Your task to perform on an android device: Open the calendar app, open the side menu, and click the "Day" option Image 0: 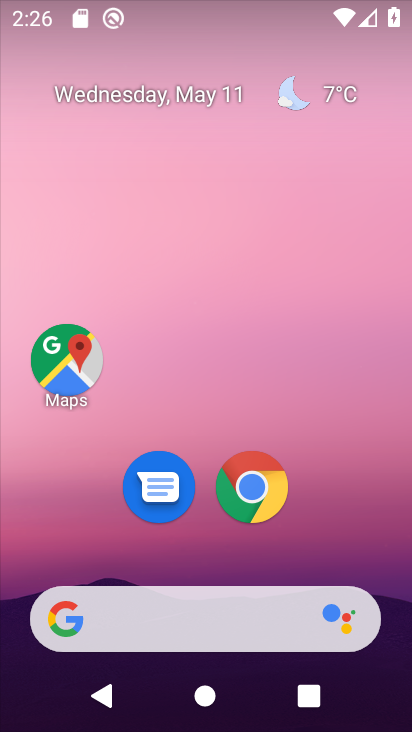
Step 0: drag from (164, 537) to (251, 86)
Your task to perform on an android device: Open the calendar app, open the side menu, and click the "Day" option Image 1: 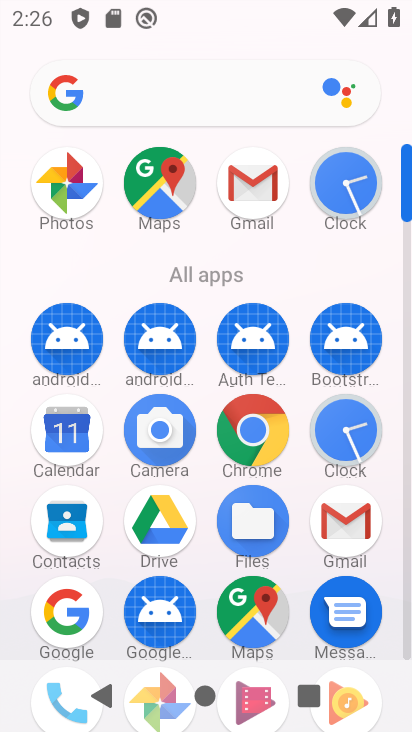
Step 1: click (51, 428)
Your task to perform on an android device: Open the calendar app, open the side menu, and click the "Day" option Image 2: 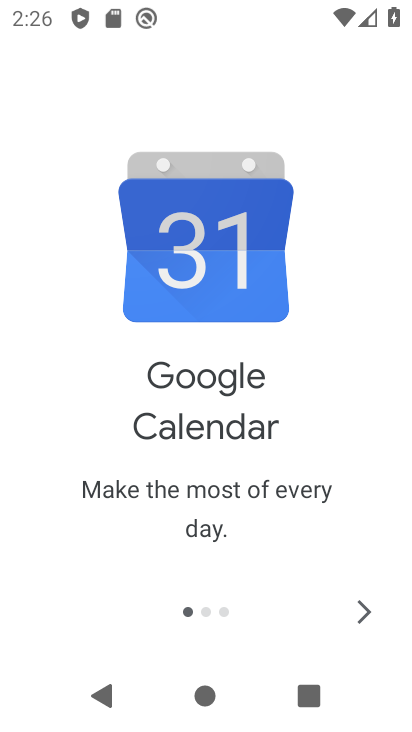
Step 2: click (381, 585)
Your task to perform on an android device: Open the calendar app, open the side menu, and click the "Day" option Image 3: 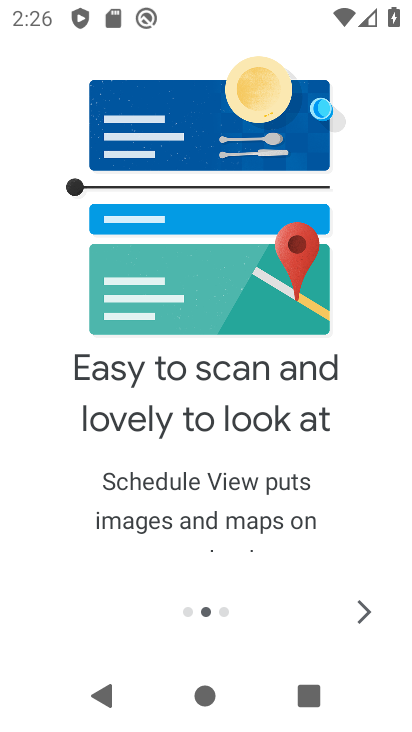
Step 3: click (373, 593)
Your task to perform on an android device: Open the calendar app, open the side menu, and click the "Day" option Image 4: 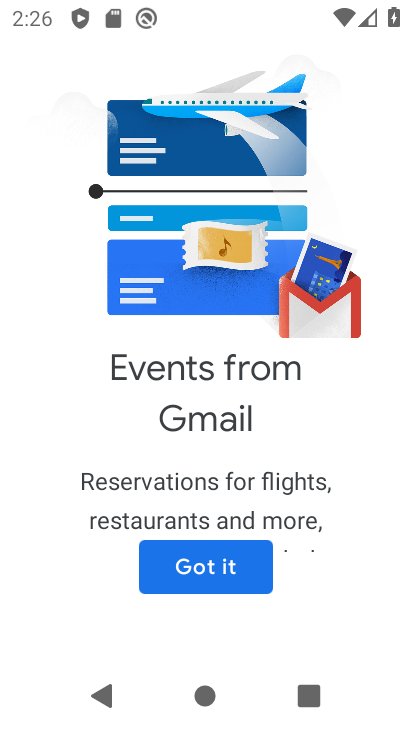
Step 4: click (373, 593)
Your task to perform on an android device: Open the calendar app, open the side menu, and click the "Day" option Image 5: 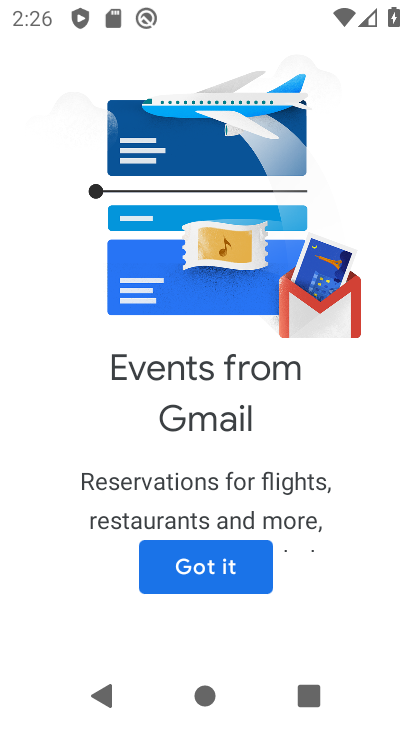
Step 5: click (202, 564)
Your task to perform on an android device: Open the calendar app, open the side menu, and click the "Day" option Image 6: 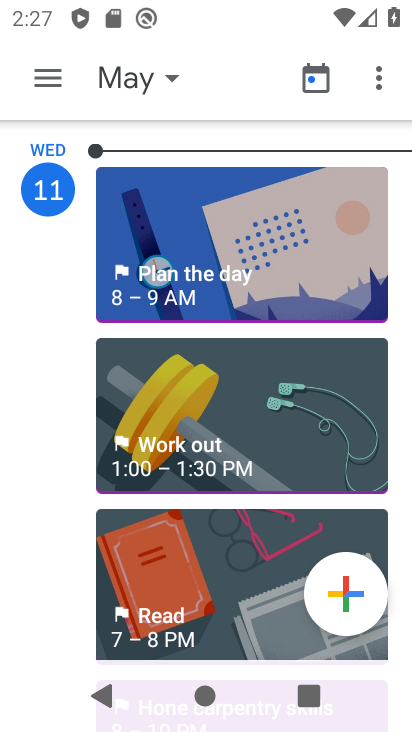
Step 6: click (45, 76)
Your task to perform on an android device: Open the calendar app, open the side menu, and click the "Day" option Image 7: 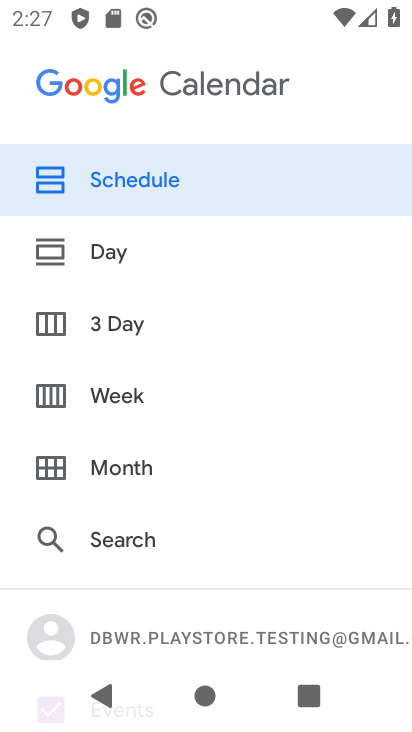
Step 7: click (109, 260)
Your task to perform on an android device: Open the calendar app, open the side menu, and click the "Day" option Image 8: 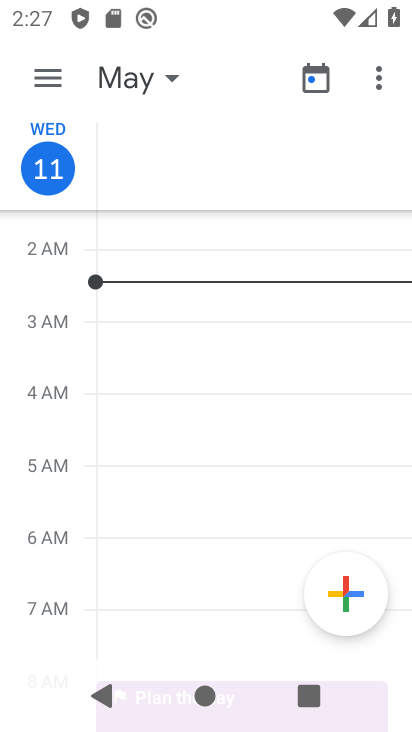
Step 8: task complete